Your task to perform on an android device: check data usage Image 0: 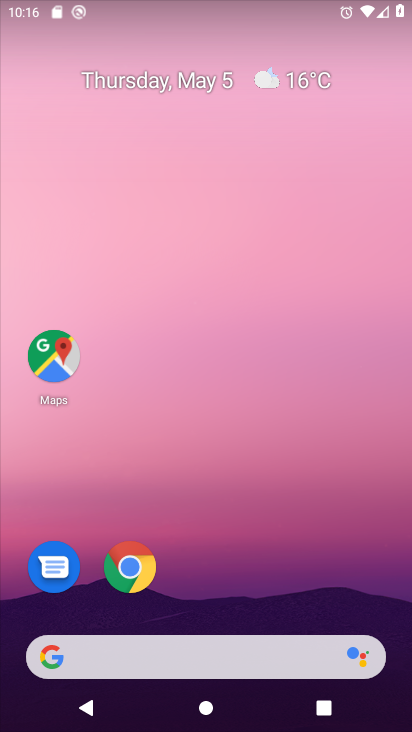
Step 0: drag from (279, 536) to (313, 40)
Your task to perform on an android device: check data usage Image 1: 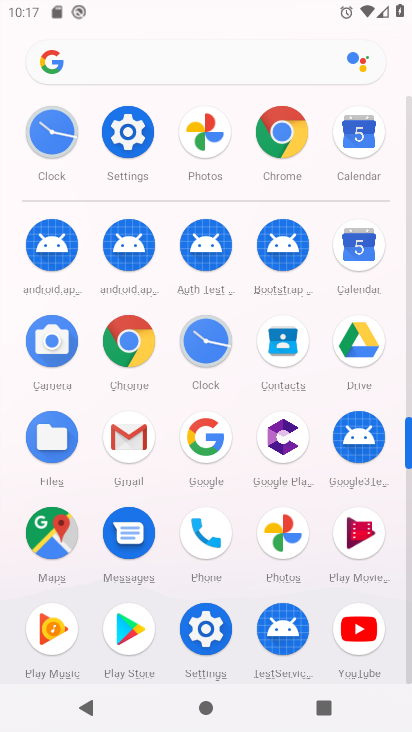
Step 1: click (139, 135)
Your task to perform on an android device: check data usage Image 2: 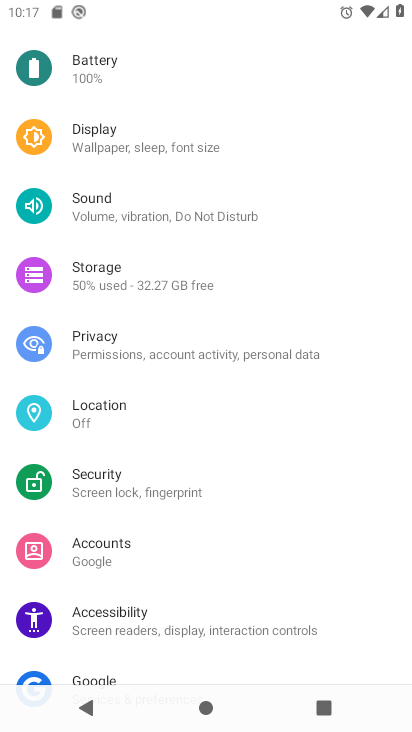
Step 2: drag from (191, 198) to (198, 537)
Your task to perform on an android device: check data usage Image 3: 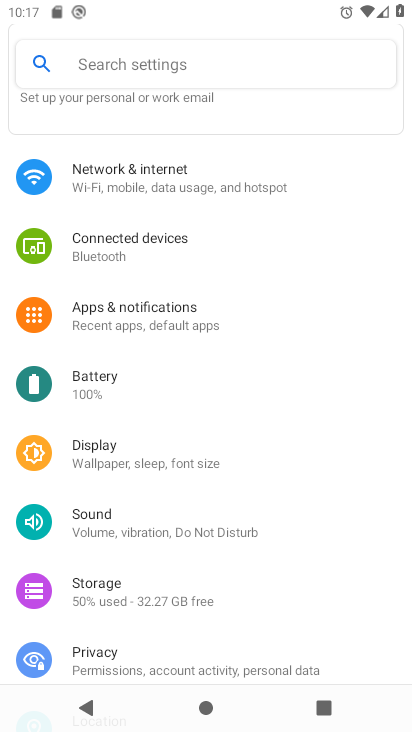
Step 3: click (213, 174)
Your task to perform on an android device: check data usage Image 4: 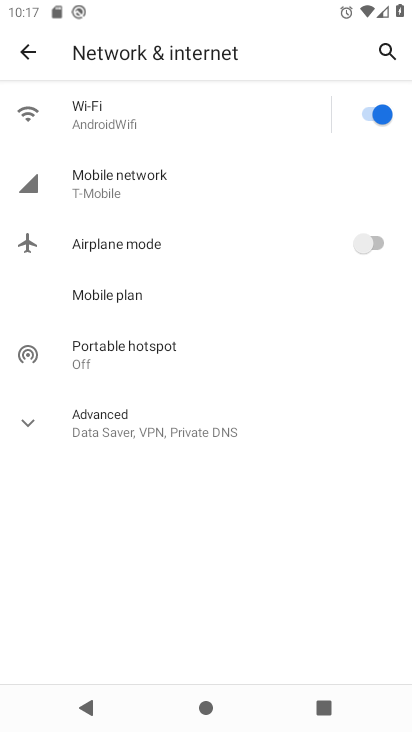
Step 4: click (175, 184)
Your task to perform on an android device: check data usage Image 5: 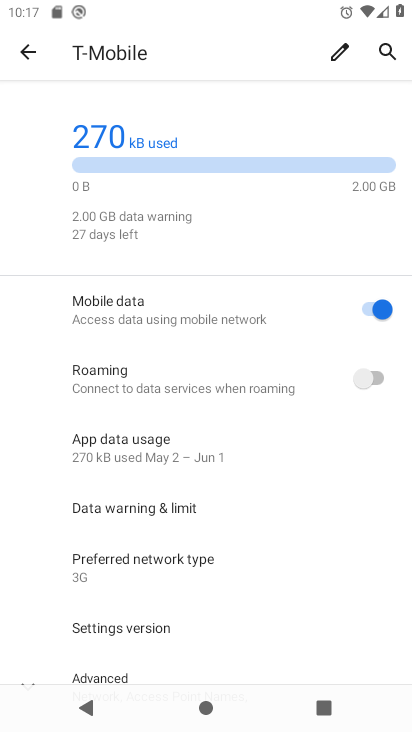
Step 5: task complete